Your task to perform on an android device: Go to calendar. Show me events next week Image 0: 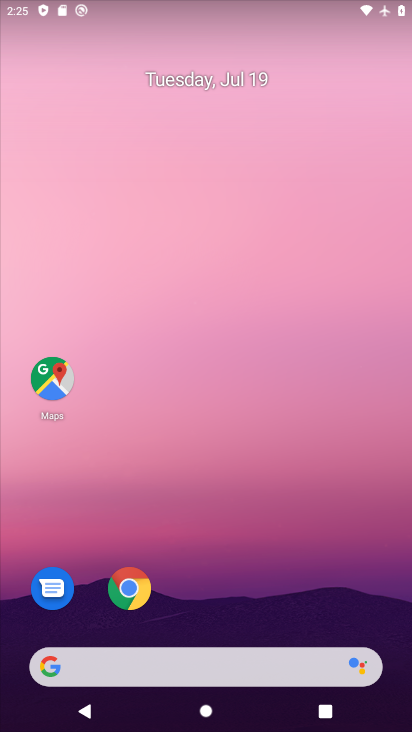
Step 0: press home button
Your task to perform on an android device: Go to calendar. Show me events next week Image 1: 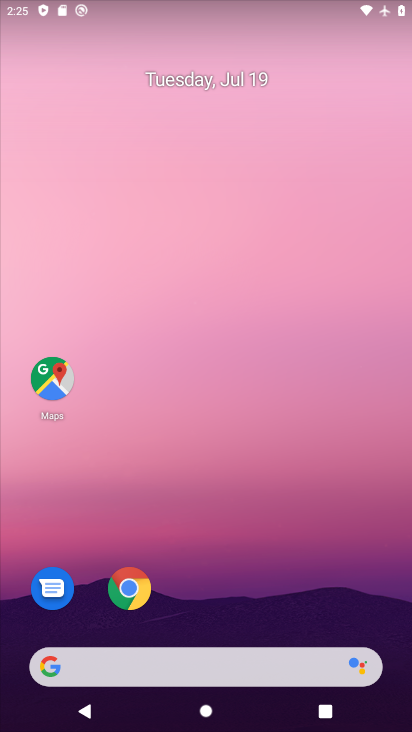
Step 1: drag from (226, 629) to (250, 20)
Your task to perform on an android device: Go to calendar. Show me events next week Image 2: 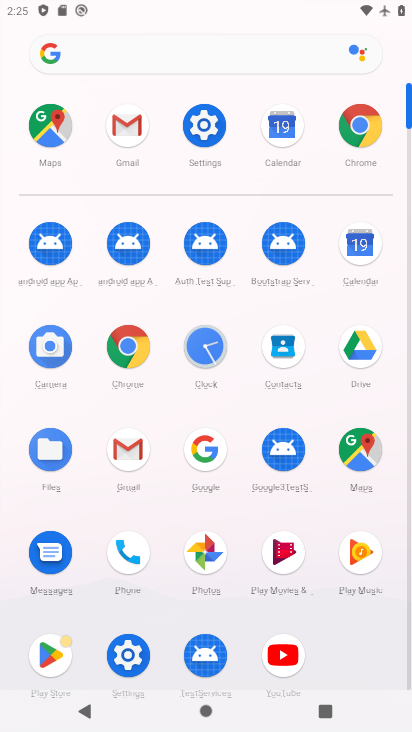
Step 2: click (356, 262)
Your task to perform on an android device: Go to calendar. Show me events next week Image 3: 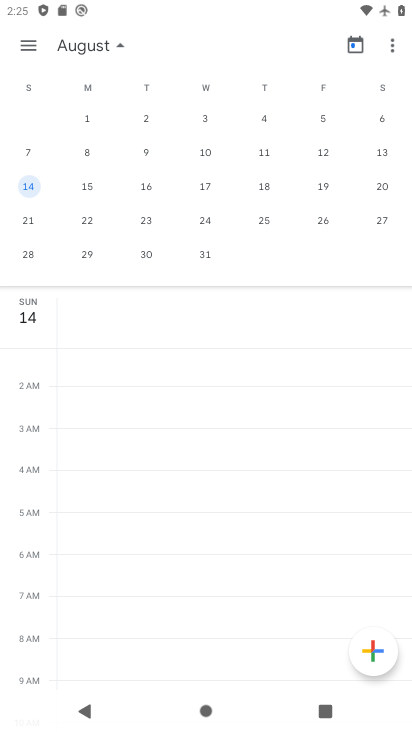
Step 3: click (30, 45)
Your task to perform on an android device: Go to calendar. Show me events next week Image 4: 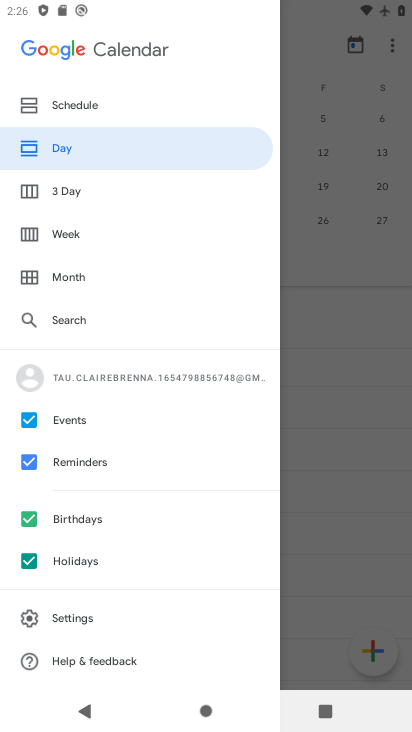
Step 4: click (304, 369)
Your task to perform on an android device: Go to calendar. Show me events next week Image 5: 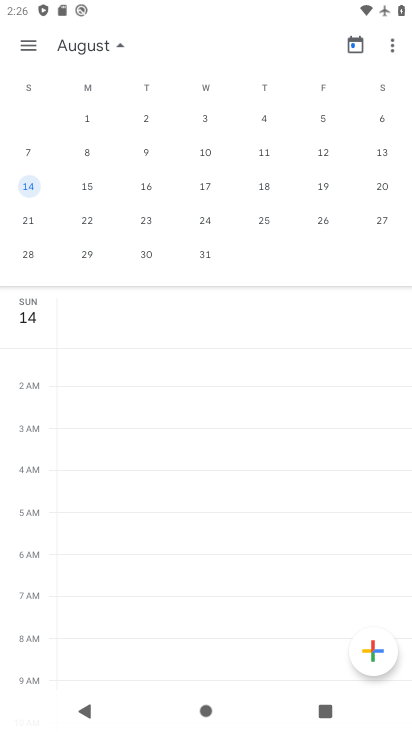
Step 5: drag from (145, 231) to (390, 248)
Your task to perform on an android device: Go to calendar. Show me events next week Image 6: 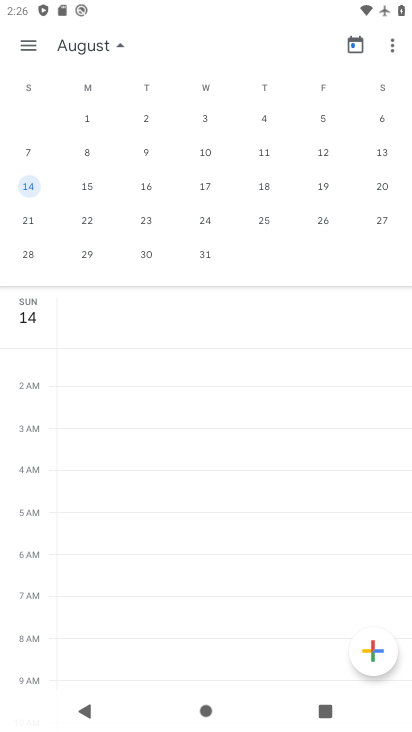
Step 6: drag from (114, 179) to (388, 162)
Your task to perform on an android device: Go to calendar. Show me events next week Image 7: 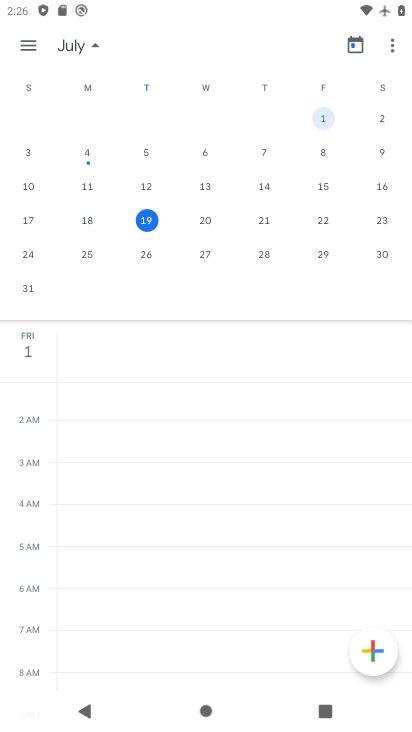
Step 7: click (43, 44)
Your task to perform on an android device: Go to calendar. Show me events next week Image 8: 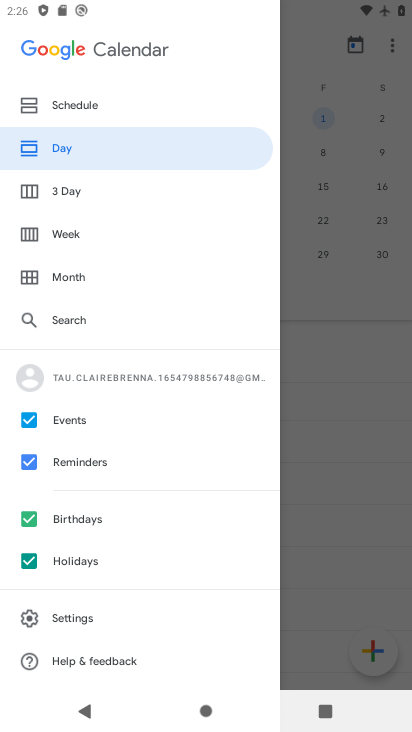
Step 8: click (64, 234)
Your task to perform on an android device: Go to calendar. Show me events next week Image 9: 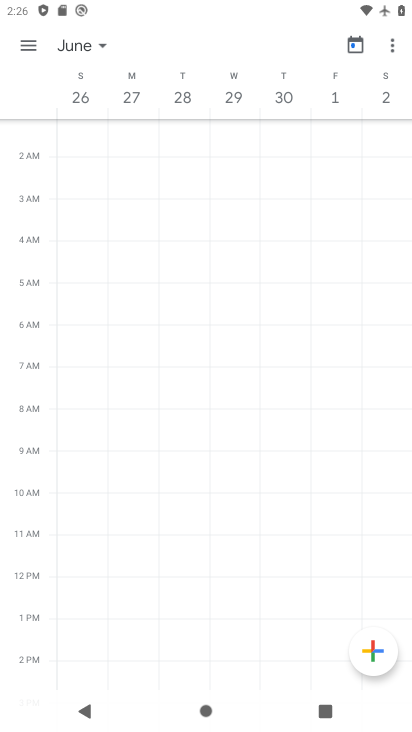
Step 9: click (41, 49)
Your task to perform on an android device: Go to calendar. Show me events next week Image 10: 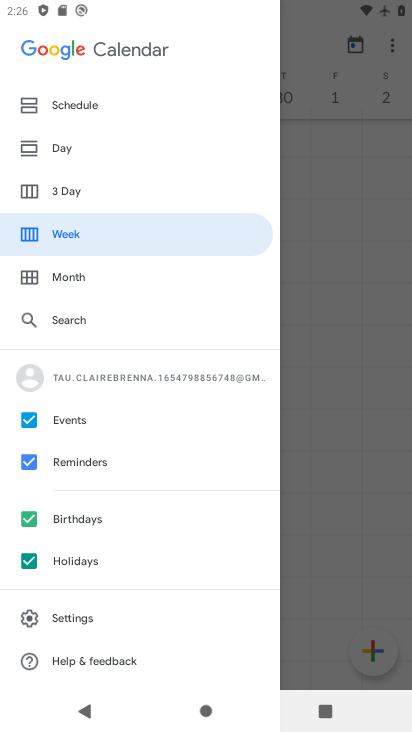
Step 10: click (76, 99)
Your task to perform on an android device: Go to calendar. Show me events next week Image 11: 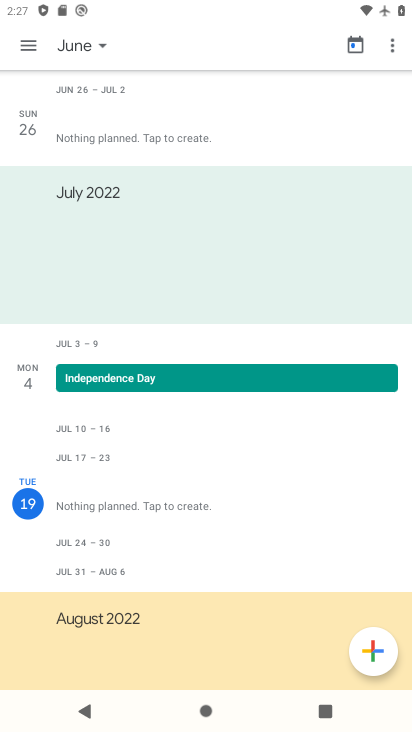
Step 11: task complete